Your task to perform on an android device: open the mobile data screen to see how much data has been used Image 0: 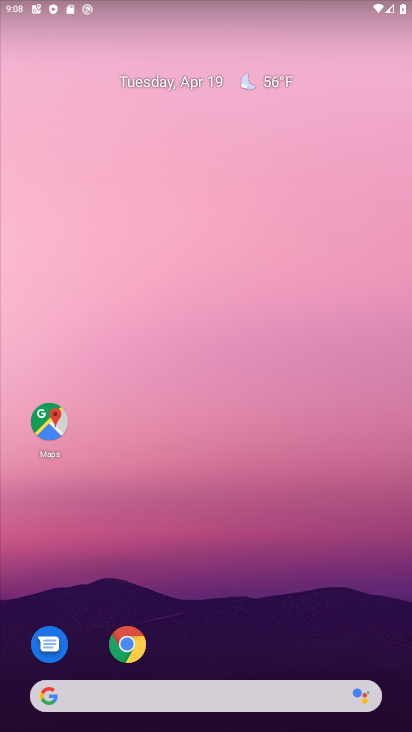
Step 0: drag from (198, 626) to (181, 153)
Your task to perform on an android device: open the mobile data screen to see how much data has been used Image 1: 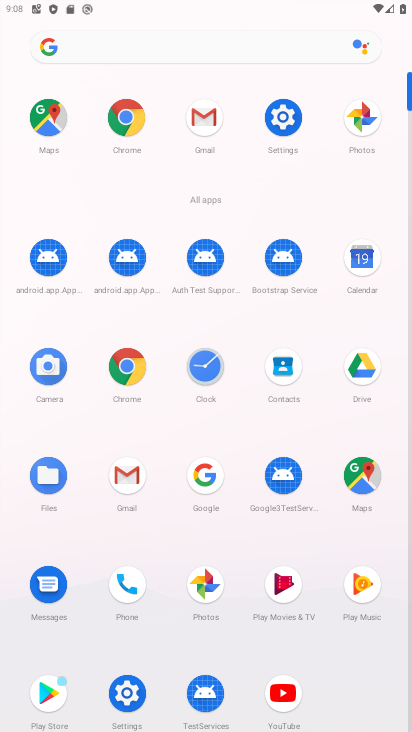
Step 1: click (286, 119)
Your task to perform on an android device: open the mobile data screen to see how much data has been used Image 2: 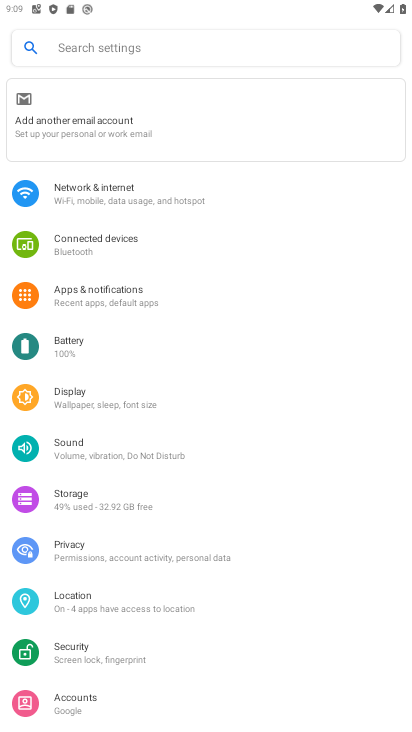
Step 2: click (127, 204)
Your task to perform on an android device: open the mobile data screen to see how much data has been used Image 3: 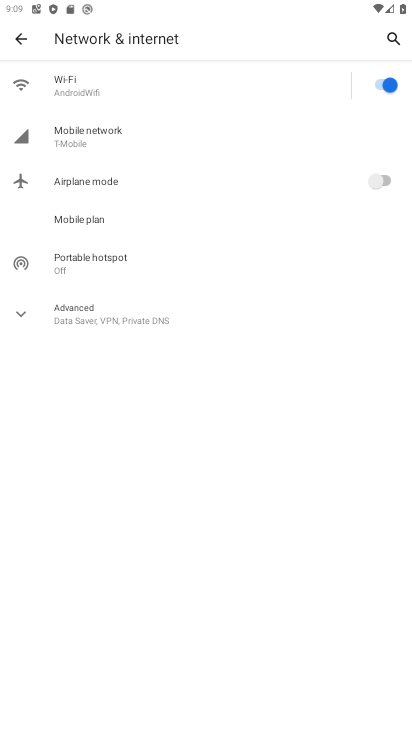
Step 3: click (115, 135)
Your task to perform on an android device: open the mobile data screen to see how much data has been used Image 4: 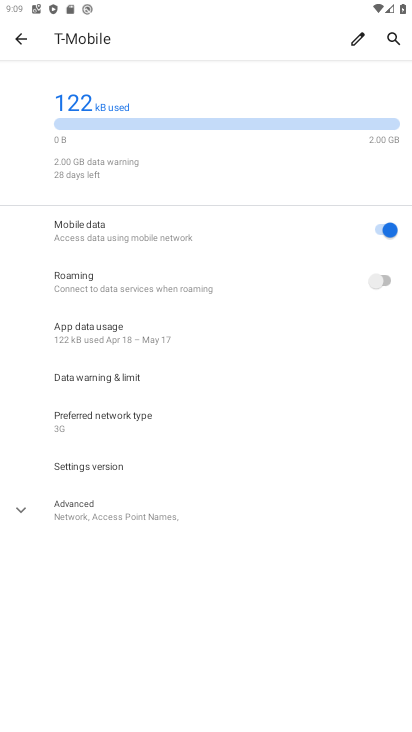
Step 4: click (153, 323)
Your task to perform on an android device: open the mobile data screen to see how much data has been used Image 5: 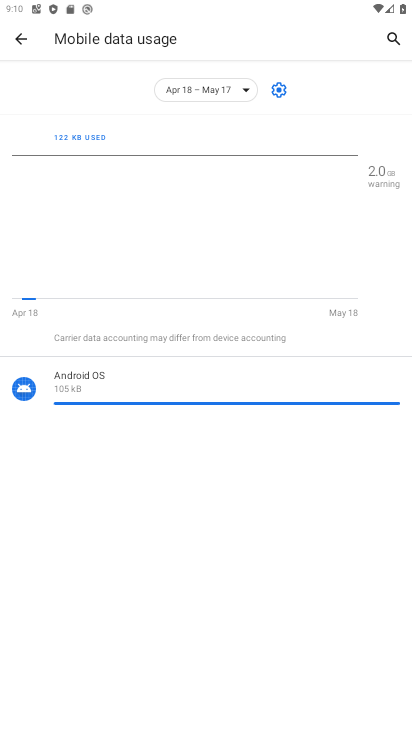
Step 5: task complete